Your task to perform on an android device: Open the map Image 0: 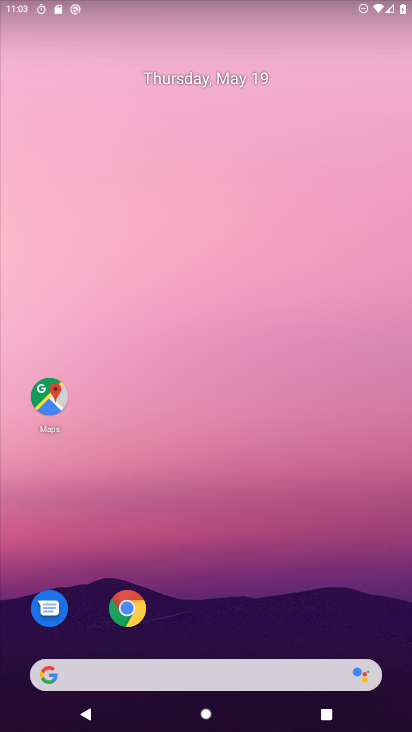
Step 0: click (47, 396)
Your task to perform on an android device: Open the map Image 1: 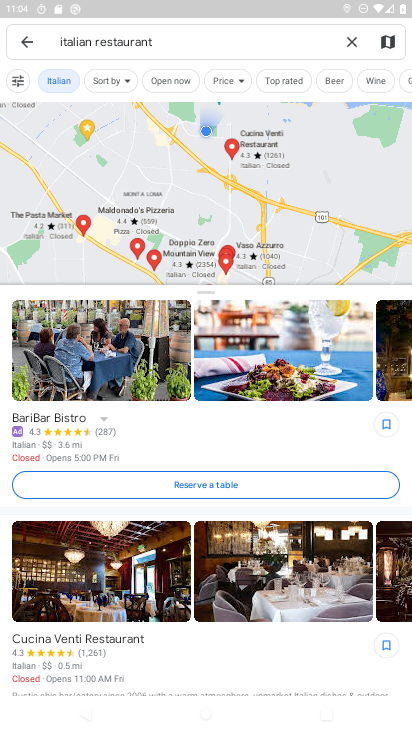
Step 1: task complete